Your task to perform on an android device: open chrome privacy settings Image 0: 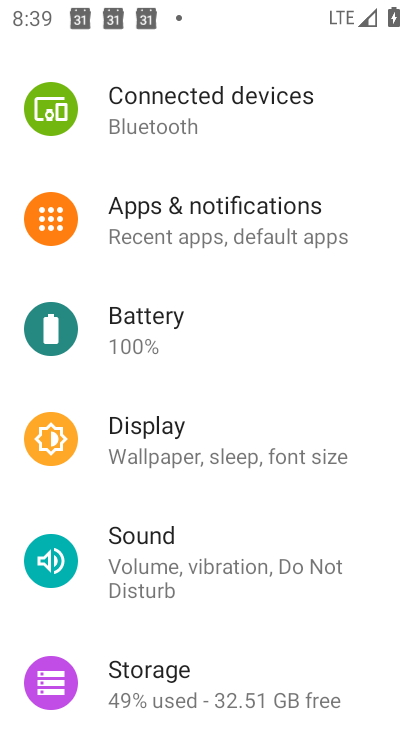
Step 0: press home button
Your task to perform on an android device: open chrome privacy settings Image 1: 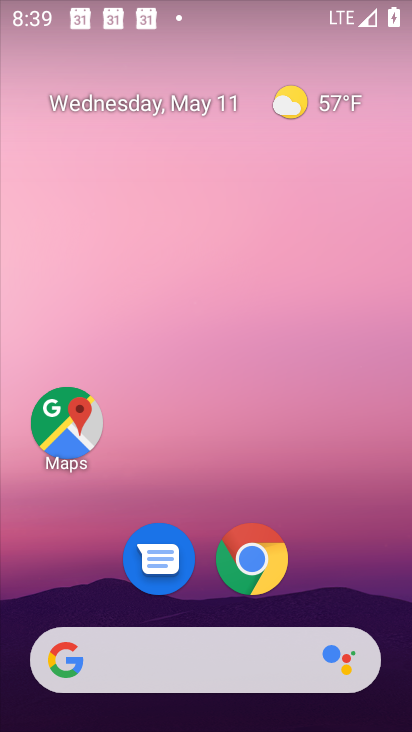
Step 1: click (255, 579)
Your task to perform on an android device: open chrome privacy settings Image 2: 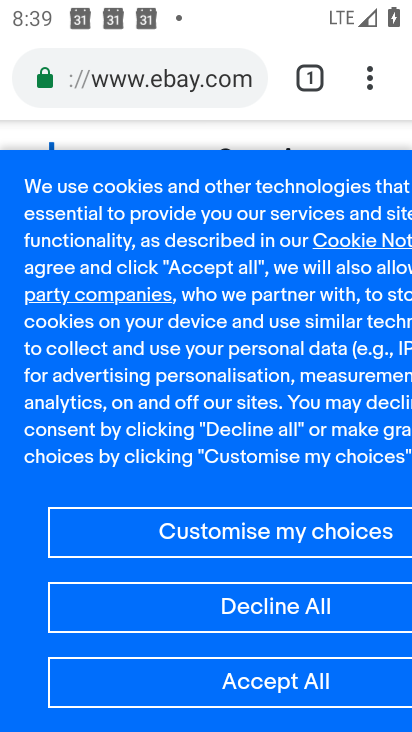
Step 2: drag from (376, 65) to (132, 604)
Your task to perform on an android device: open chrome privacy settings Image 3: 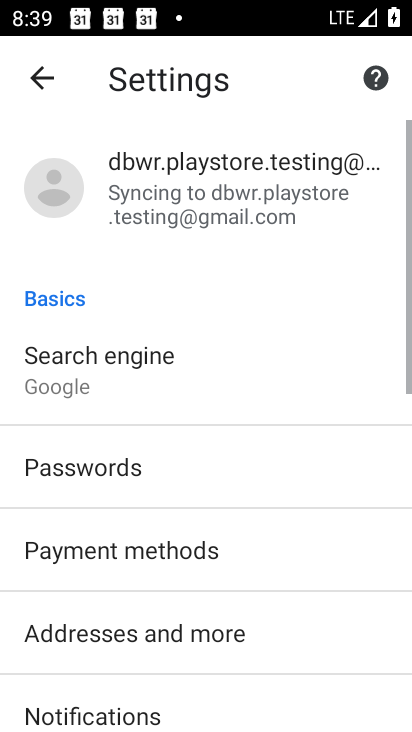
Step 3: drag from (132, 604) to (175, 174)
Your task to perform on an android device: open chrome privacy settings Image 4: 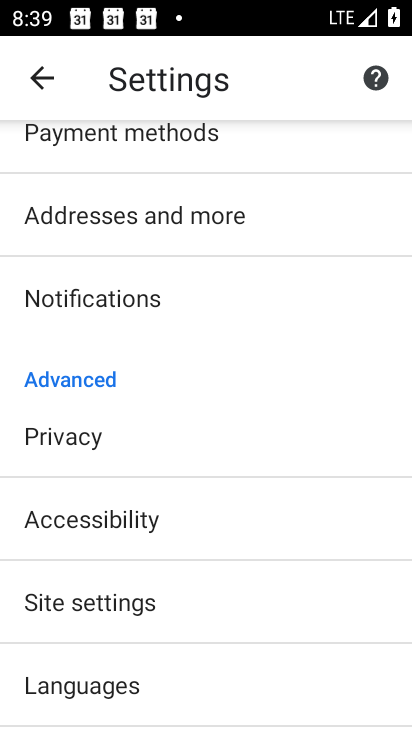
Step 4: click (112, 414)
Your task to perform on an android device: open chrome privacy settings Image 5: 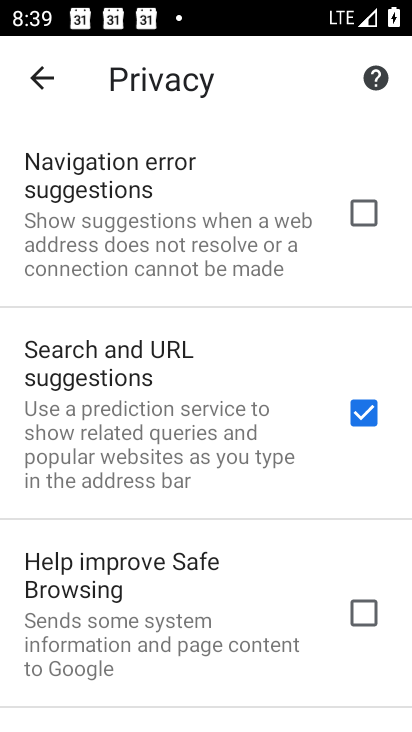
Step 5: task complete